Your task to perform on an android device: Open Yahoo.com Image 0: 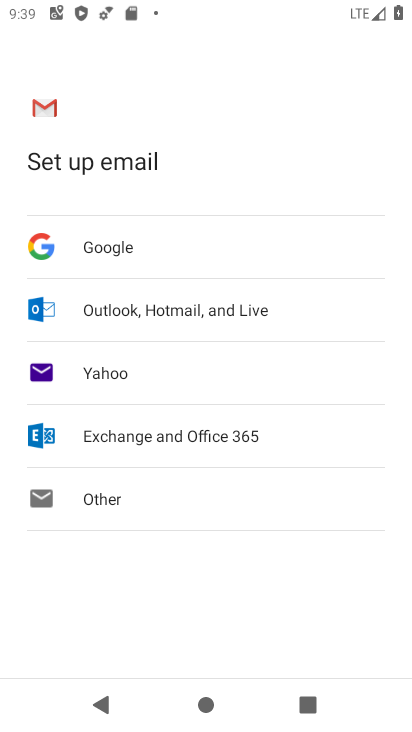
Step 0: press home button
Your task to perform on an android device: Open Yahoo.com Image 1: 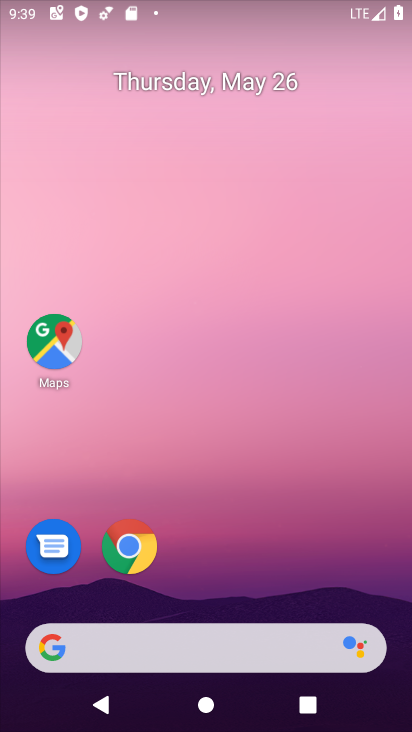
Step 1: drag from (350, 525) to (326, 171)
Your task to perform on an android device: Open Yahoo.com Image 2: 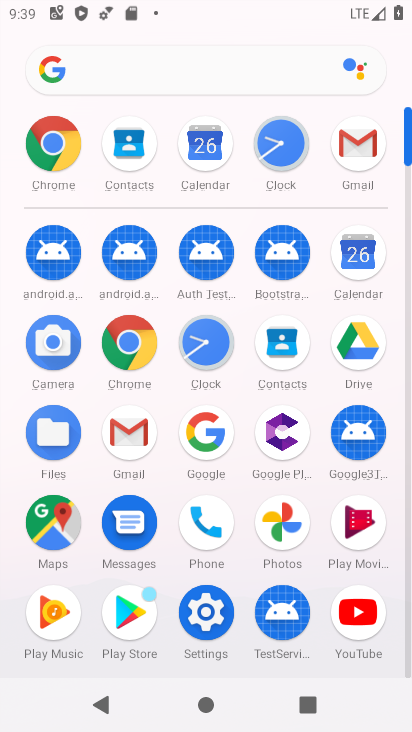
Step 2: click (50, 160)
Your task to perform on an android device: Open Yahoo.com Image 3: 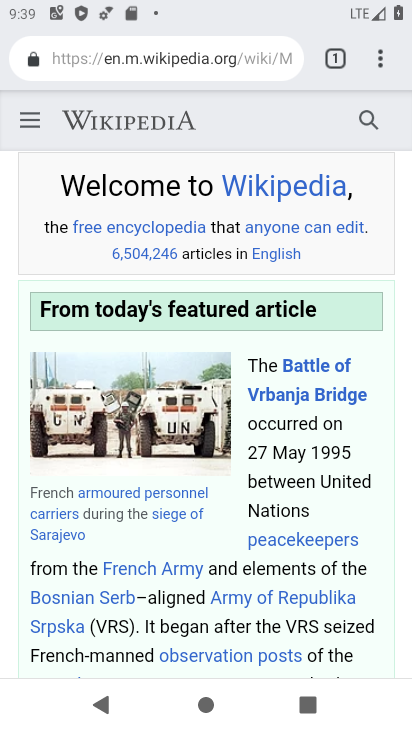
Step 3: click (216, 58)
Your task to perform on an android device: Open Yahoo.com Image 4: 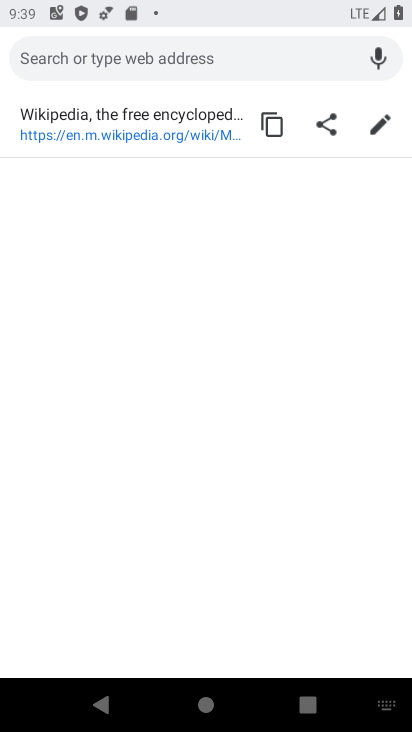
Step 4: type "yahoo.com"
Your task to perform on an android device: Open Yahoo.com Image 5: 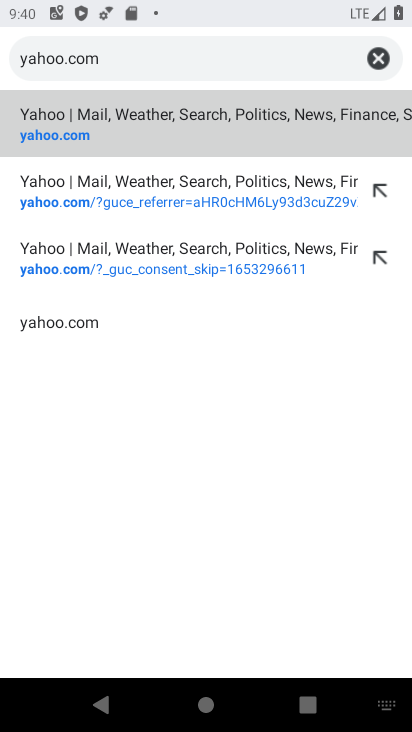
Step 5: click (132, 124)
Your task to perform on an android device: Open Yahoo.com Image 6: 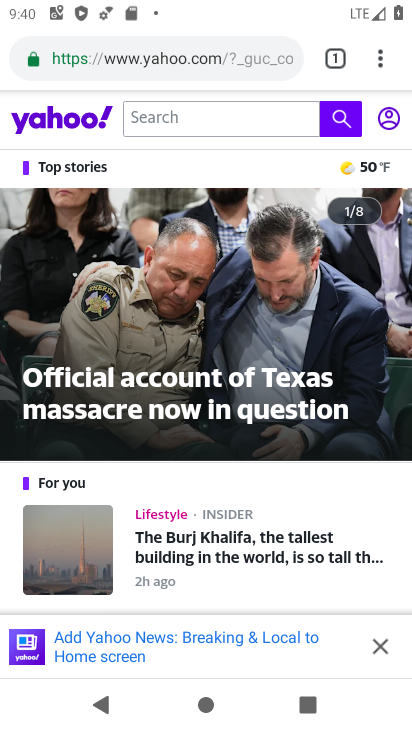
Step 6: task complete